Your task to perform on an android device: Open ESPN.com Image 0: 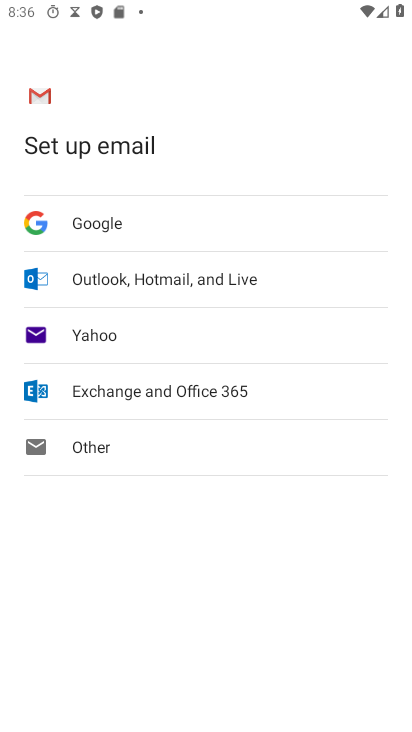
Step 0: press home button
Your task to perform on an android device: Open ESPN.com Image 1: 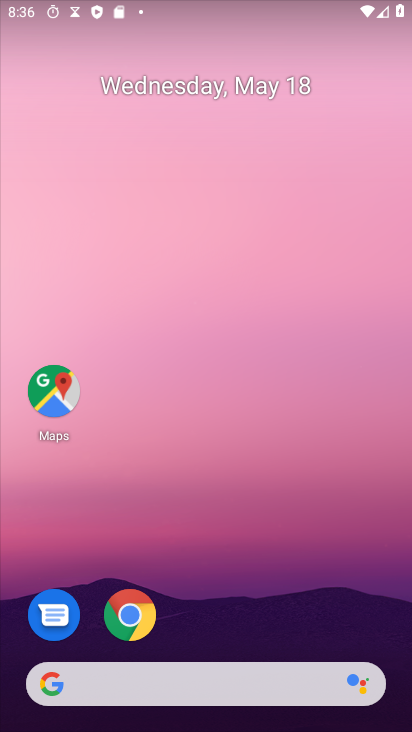
Step 1: click (128, 626)
Your task to perform on an android device: Open ESPN.com Image 2: 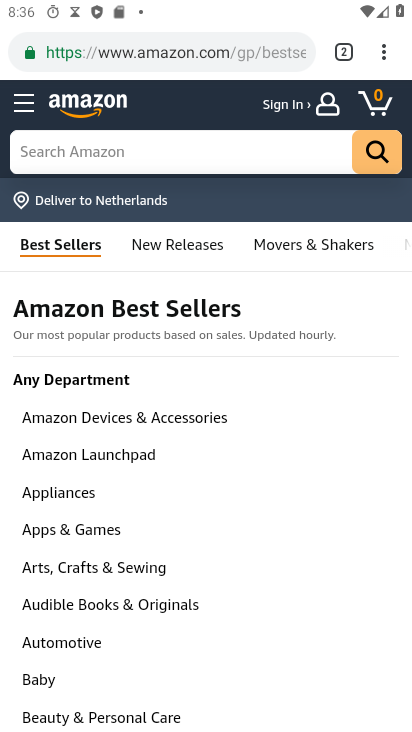
Step 2: click (337, 48)
Your task to perform on an android device: Open ESPN.com Image 3: 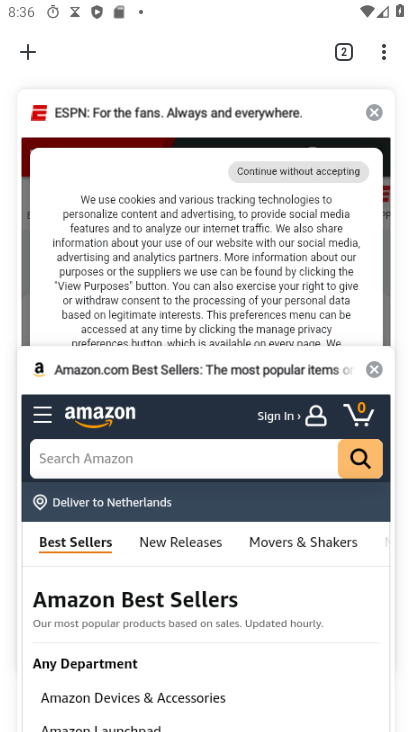
Step 3: click (80, 144)
Your task to perform on an android device: Open ESPN.com Image 4: 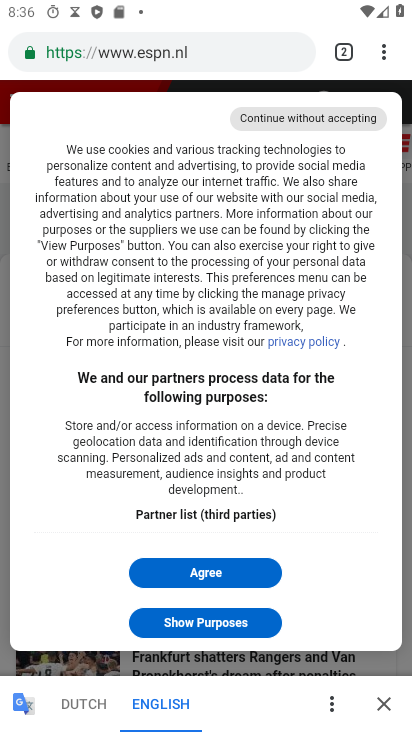
Step 4: click (238, 568)
Your task to perform on an android device: Open ESPN.com Image 5: 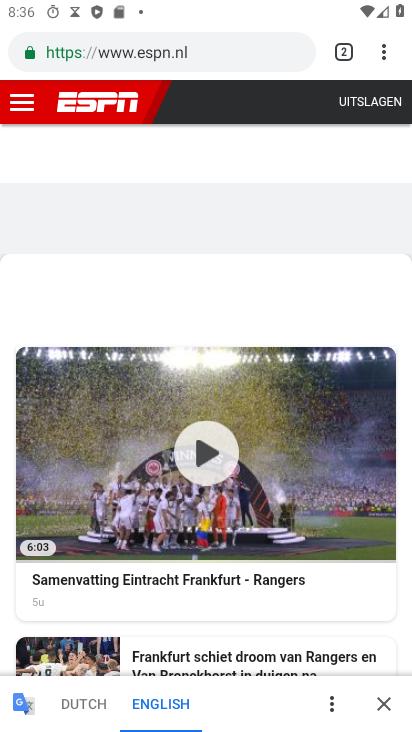
Step 5: task complete